Your task to perform on an android device: change notification settings in the gmail app Image 0: 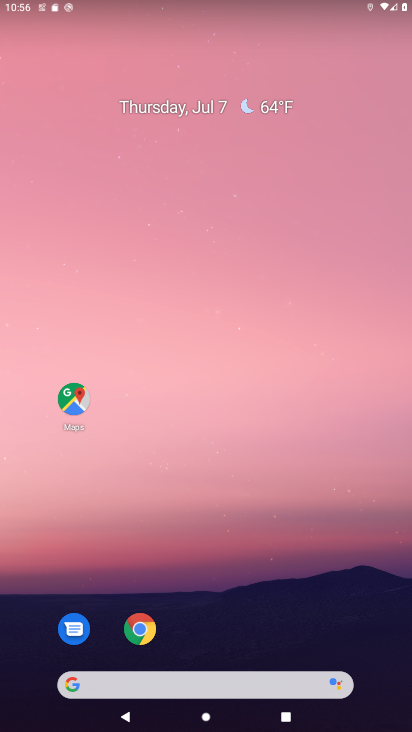
Step 0: drag from (262, 622) to (265, 34)
Your task to perform on an android device: change notification settings in the gmail app Image 1: 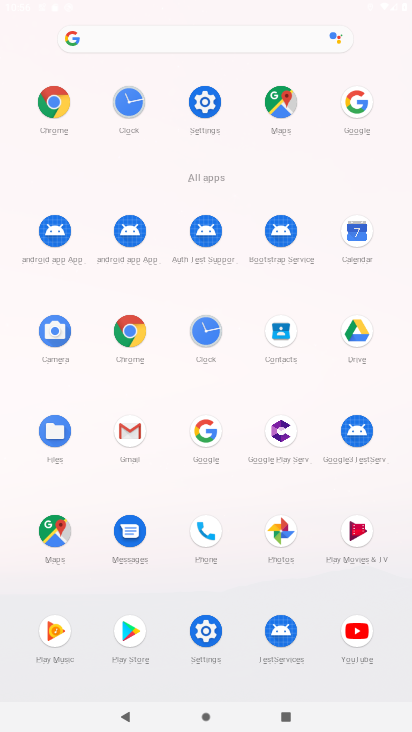
Step 1: click (129, 428)
Your task to perform on an android device: change notification settings in the gmail app Image 2: 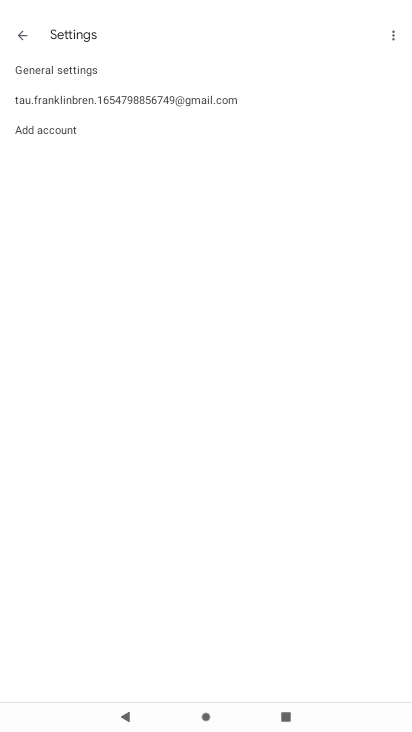
Step 2: click (98, 101)
Your task to perform on an android device: change notification settings in the gmail app Image 3: 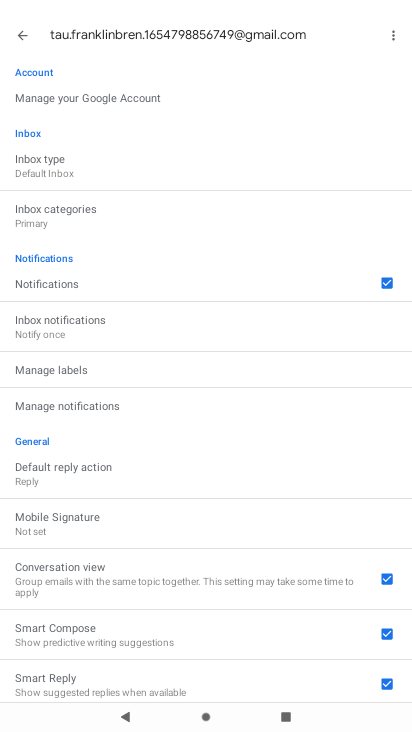
Step 3: click (85, 403)
Your task to perform on an android device: change notification settings in the gmail app Image 4: 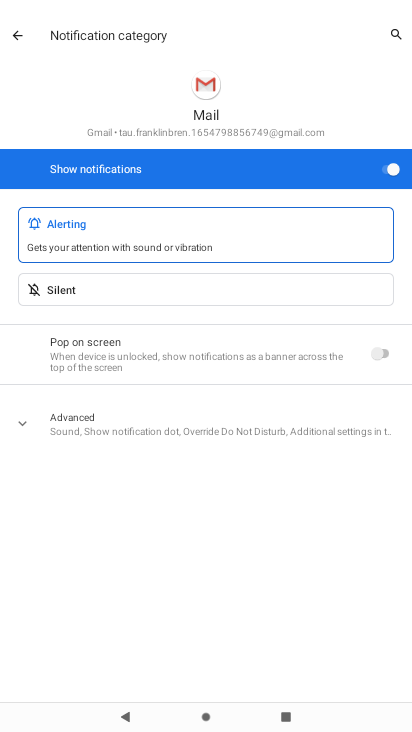
Step 4: click (391, 168)
Your task to perform on an android device: change notification settings in the gmail app Image 5: 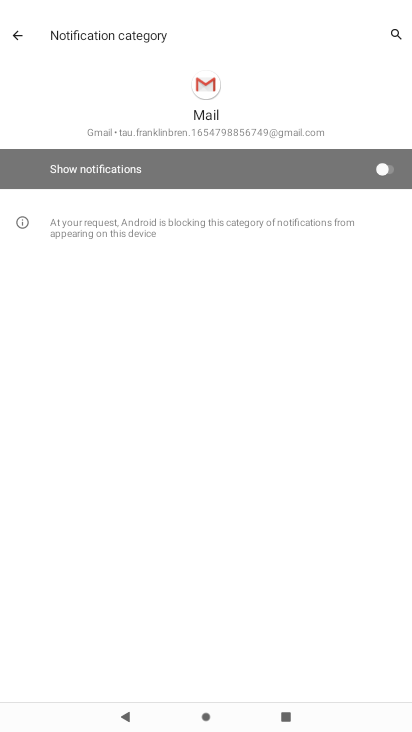
Step 5: task complete